Your task to perform on an android device: turn off notifications settings in the gmail app Image 0: 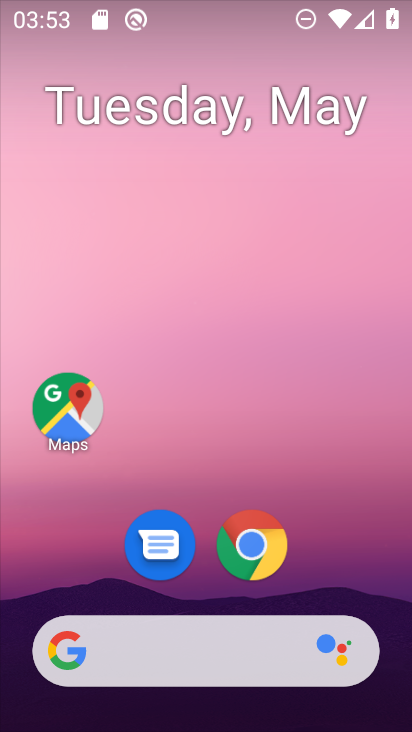
Step 0: drag from (396, 615) to (306, 24)
Your task to perform on an android device: turn off notifications settings in the gmail app Image 1: 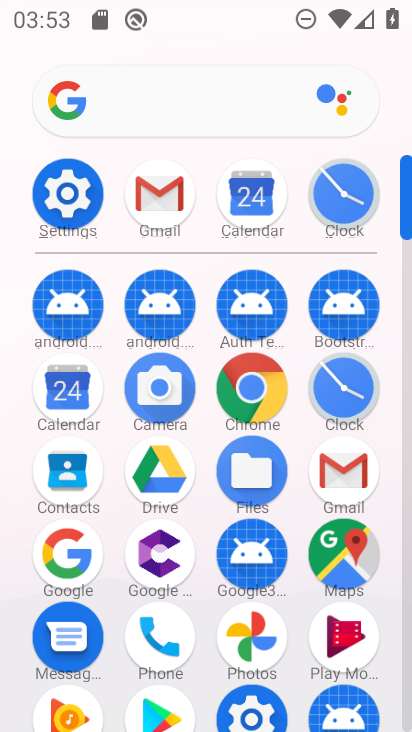
Step 1: click (344, 466)
Your task to perform on an android device: turn off notifications settings in the gmail app Image 2: 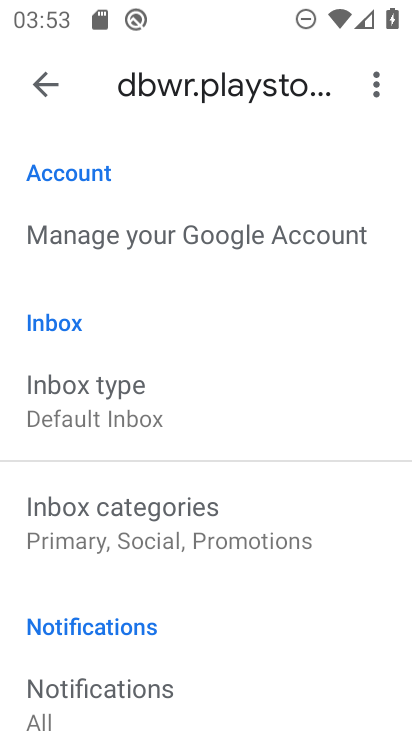
Step 2: drag from (294, 590) to (283, 124)
Your task to perform on an android device: turn off notifications settings in the gmail app Image 3: 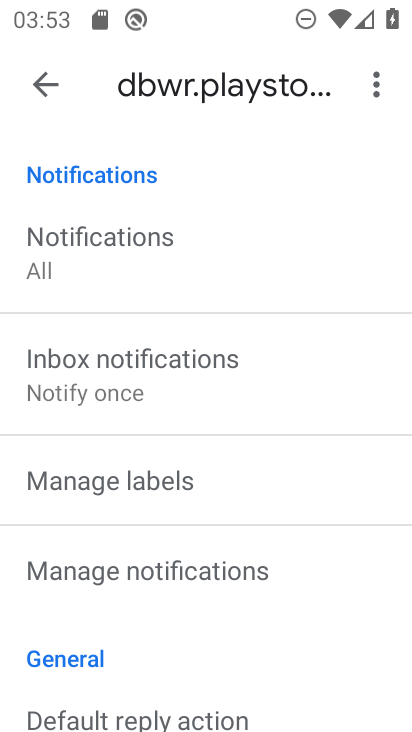
Step 3: click (114, 567)
Your task to perform on an android device: turn off notifications settings in the gmail app Image 4: 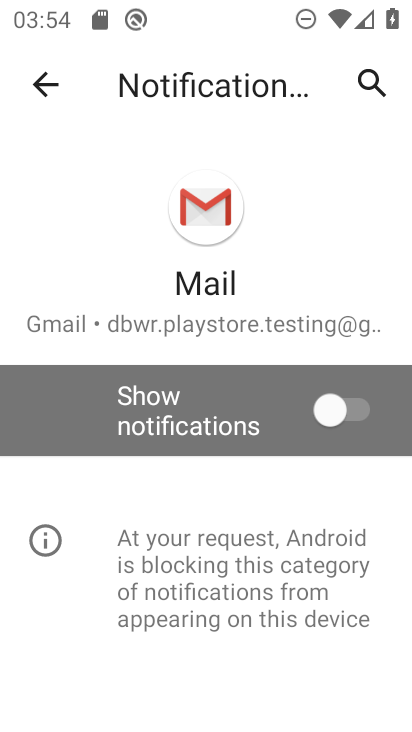
Step 4: task complete